Your task to perform on an android device: open a bookmark in the chrome app Image 0: 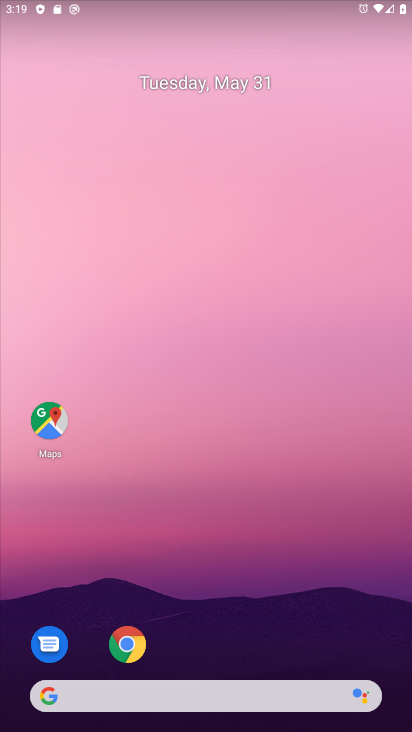
Step 0: drag from (242, 558) to (228, 484)
Your task to perform on an android device: open a bookmark in the chrome app Image 1: 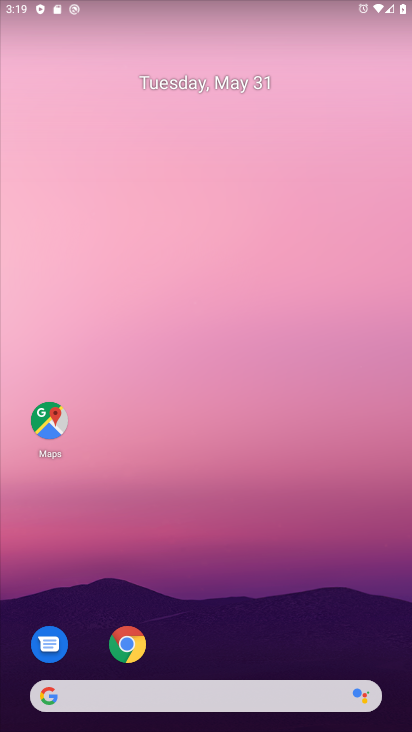
Step 1: click (120, 649)
Your task to perform on an android device: open a bookmark in the chrome app Image 2: 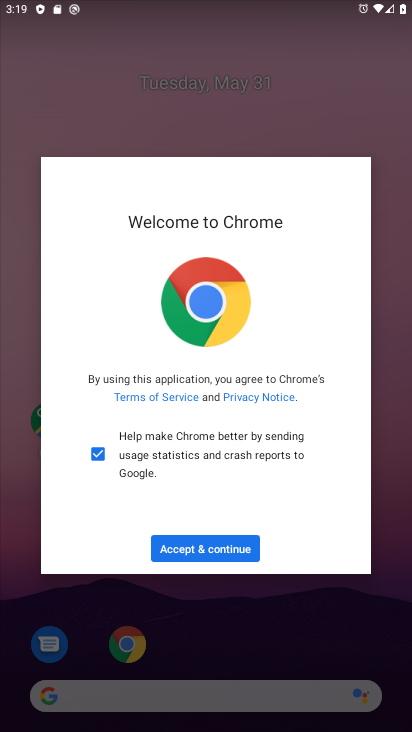
Step 2: click (188, 558)
Your task to perform on an android device: open a bookmark in the chrome app Image 3: 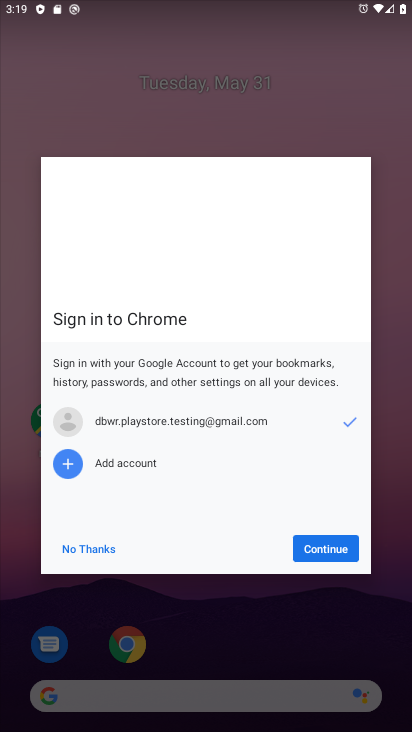
Step 3: click (293, 555)
Your task to perform on an android device: open a bookmark in the chrome app Image 4: 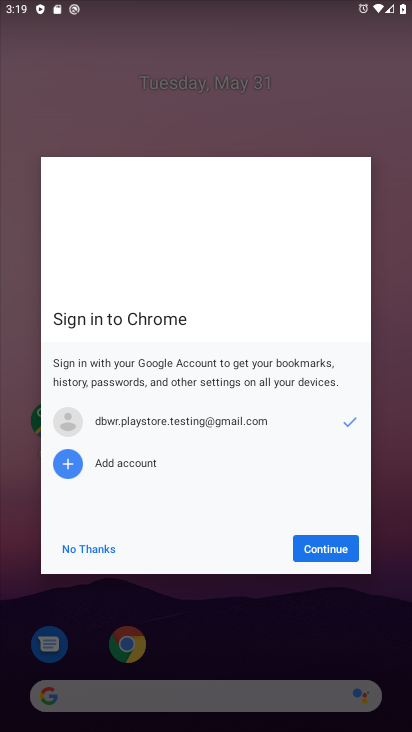
Step 4: click (304, 554)
Your task to perform on an android device: open a bookmark in the chrome app Image 5: 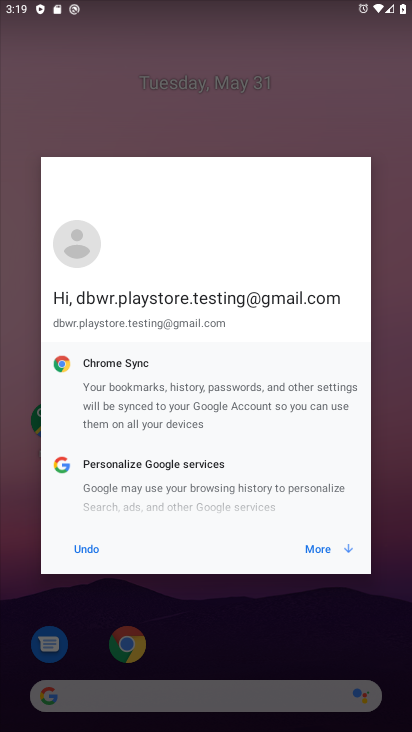
Step 5: click (304, 554)
Your task to perform on an android device: open a bookmark in the chrome app Image 6: 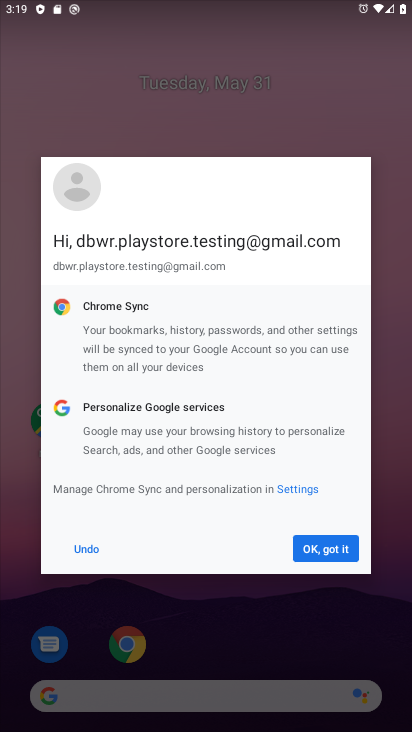
Step 6: click (304, 554)
Your task to perform on an android device: open a bookmark in the chrome app Image 7: 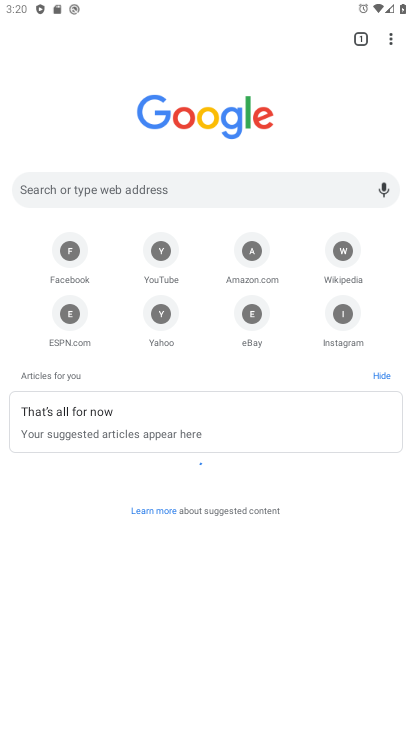
Step 7: click (384, 35)
Your task to perform on an android device: open a bookmark in the chrome app Image 8: 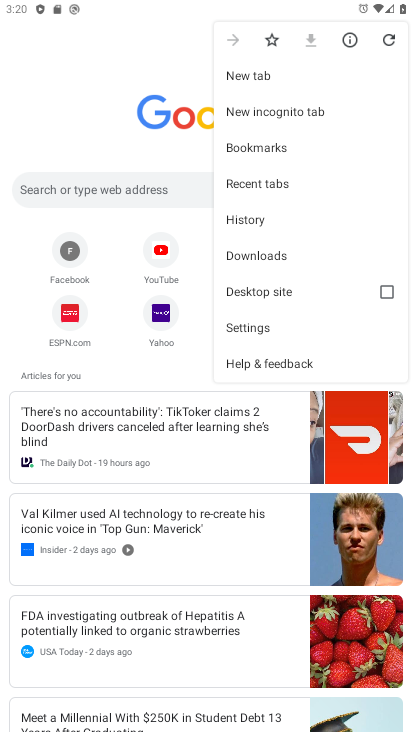
Step 8: click (285, 149)
Your task to perform on an android device: open a bookmark in the chrome app Image 9: 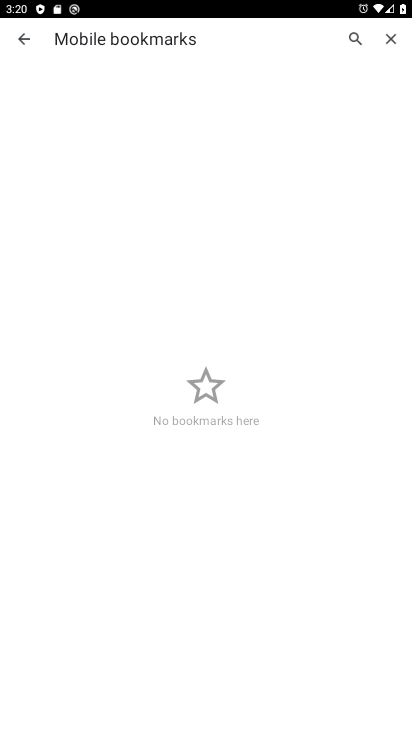
Step 9: task complete